Your task to perform on an android device: Go to internet settings Image 0: 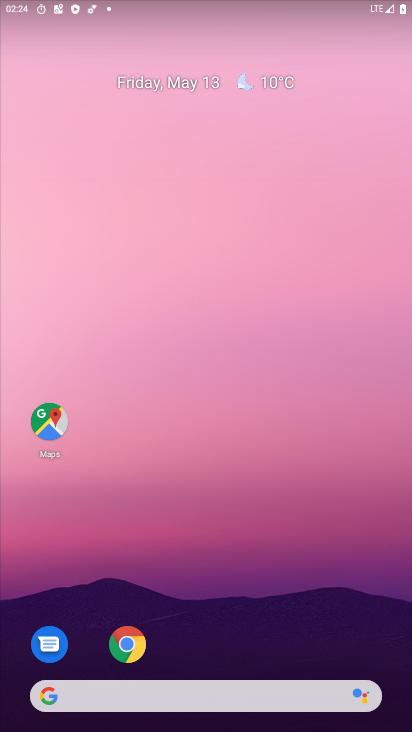
Step 0: drag from (188, 652) to (319, 6)
Your task to perform on an android device: Go to internet settings Image 1: 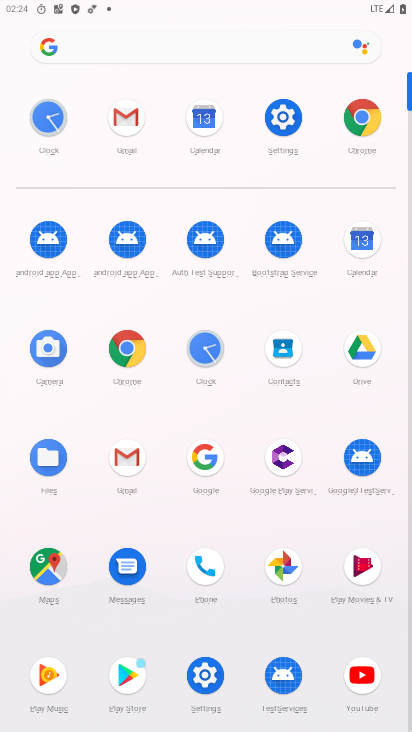
Step 1: click (286, 132)
Your task to perform on an android device: Go to internet settings Image 2: 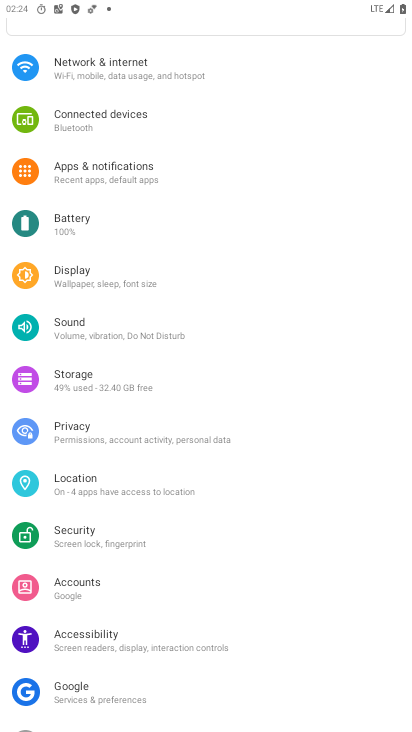
Step 2: click (162, 70)
Your task to perform on an android device: Go to internet settings Image 3: 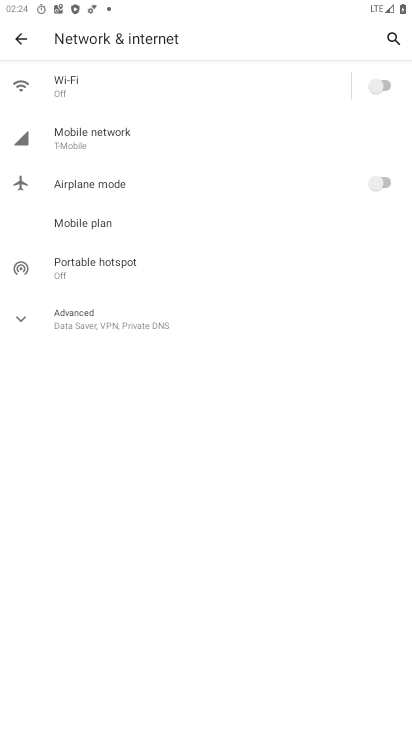
Step 3: click (129, 137)
Your task to perform on an android device: Go to internet settings Image 4: 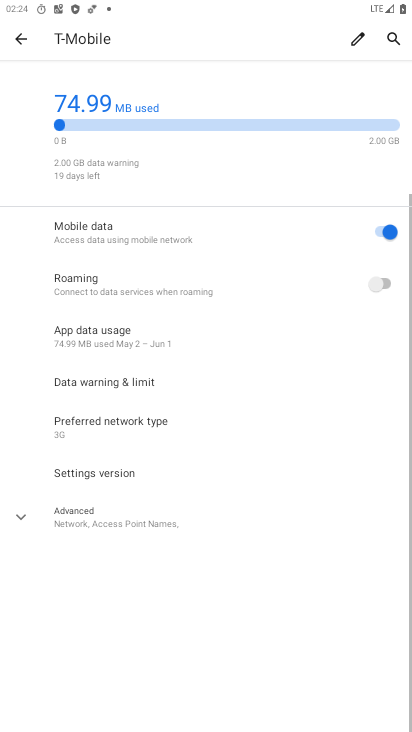
Step 4: task complete